Your task to perform on an android device: create a new album in the google photos Image 0: 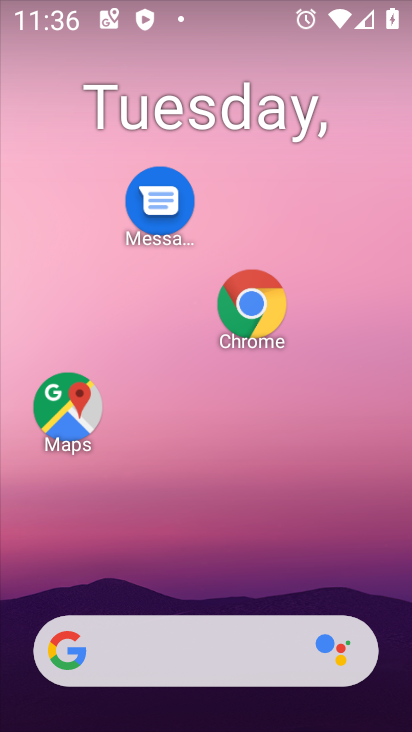
Step 0: drag from (277, 457) to (311, 235)
Your task to perform on an android device: create a new album in the google photos Image 1: 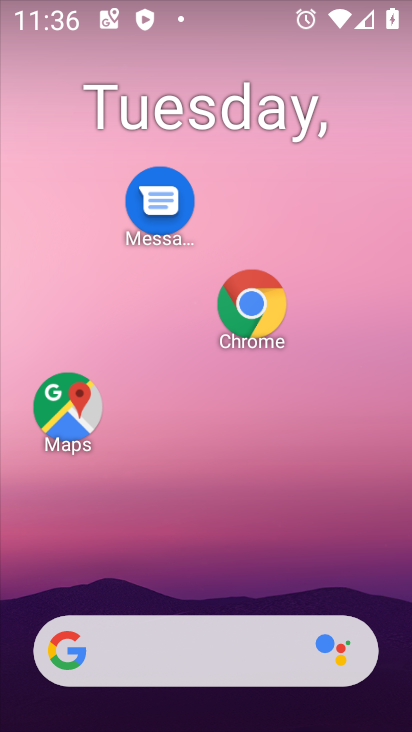
Step 1: drag from (272, 455) to (297, 199)
Your task to perform on an android device: create a new album in the google photos Image 2: 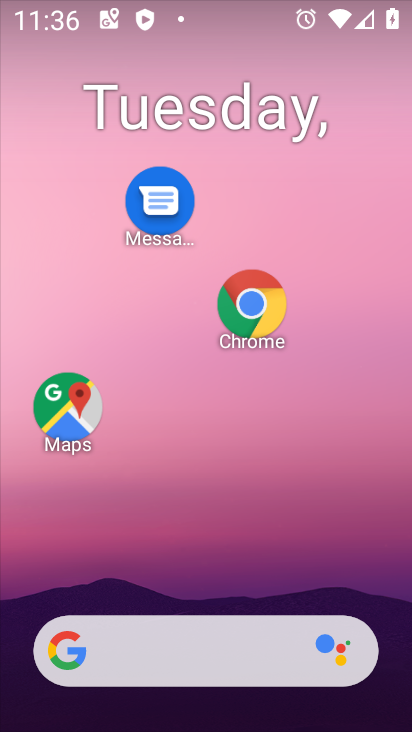
Step 2: drag from (299, 465) to (336, 104)
Your task to perform on an android device: create a new album in the google photos Image 3: 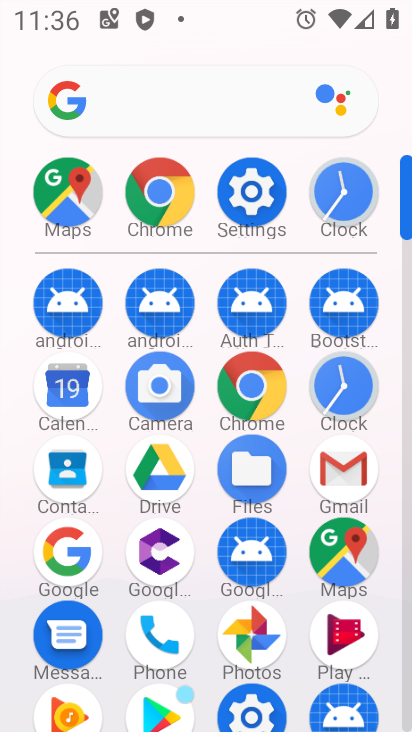
Step 3: click (244, 626)
Your task to perform on an android device: create a new album in the google photos Image 4: 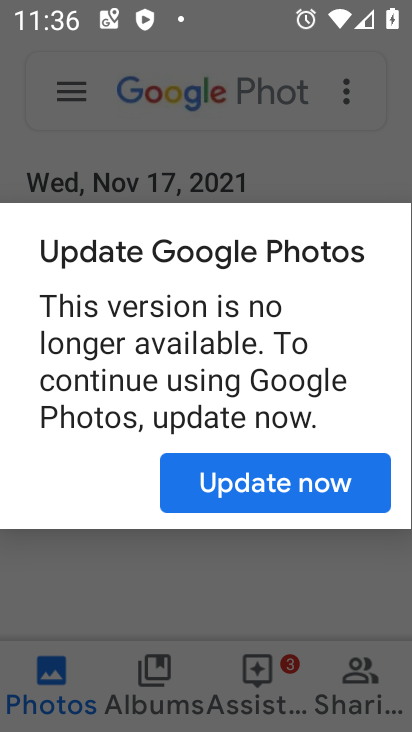
Step 4: click (302, 475)
Your task to perform on an android device: create a new album in the google photos Image 5: 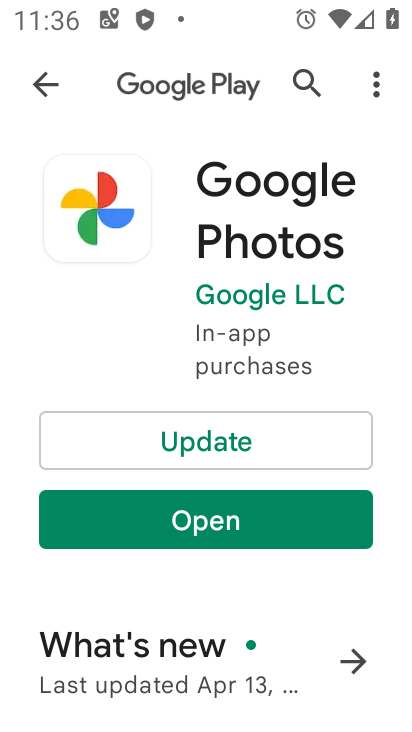
Step 5: press back button
Your task to perform on an android device: create a new album in the google photos Image 6: 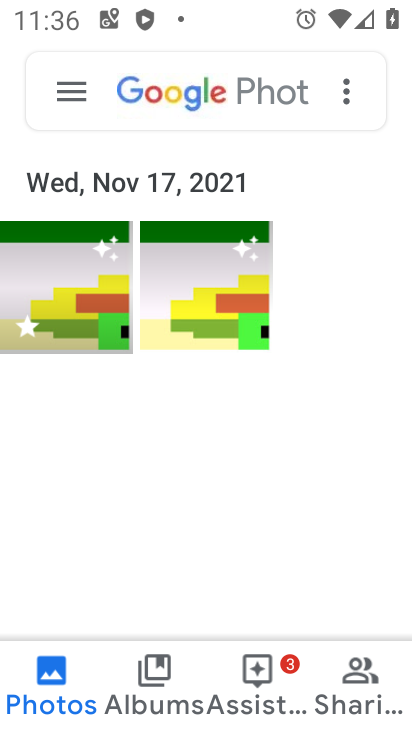
Step 6: click (98, 305)
Your task to perform on an android device: create a new album in the google photos Image 7: 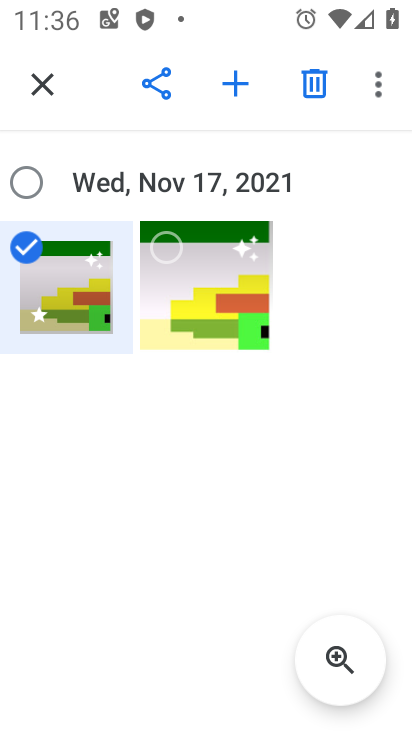
Step 7: click (228, 82)
Your task to perform on an android device: create a new album in the google photos Image 8: 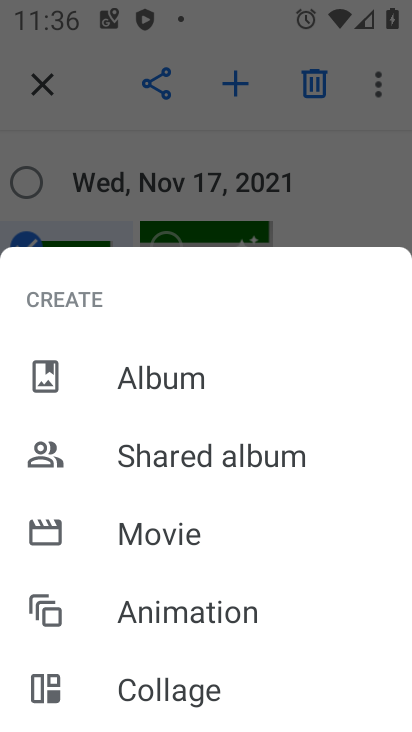
Step 8: click (215, 383)
Your task to perform on an android device: create a new album in the google photos Image 9: 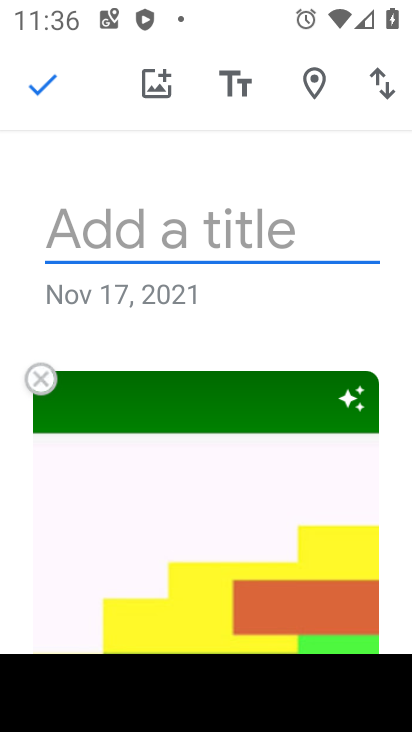
Step 9: type "hhhhhhhh"
Your task to perform on an android device: create a new album in the google photos Image 10: 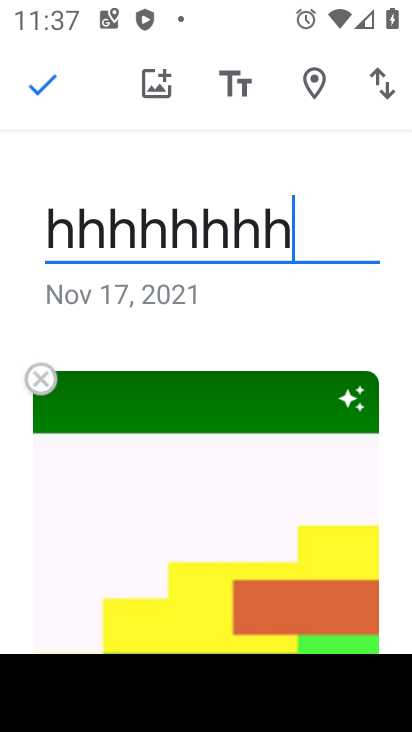
Step 10: click (55, 88)
Your task to perform on an android device: create a new album in the google photos Image 11: 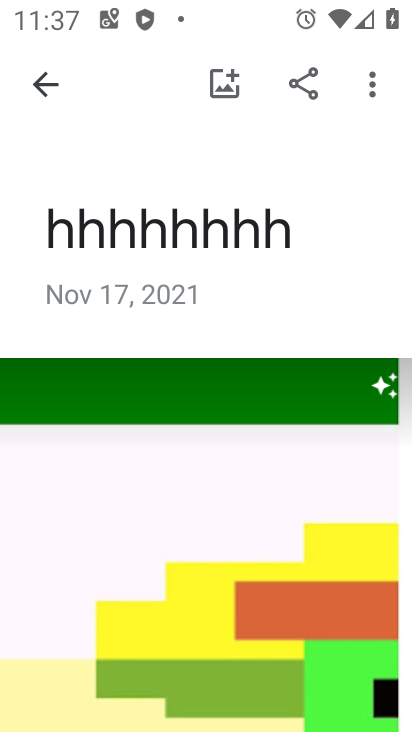
Step 11: task complete